Your task to perform on an android device: Go to Google maps Image 0: 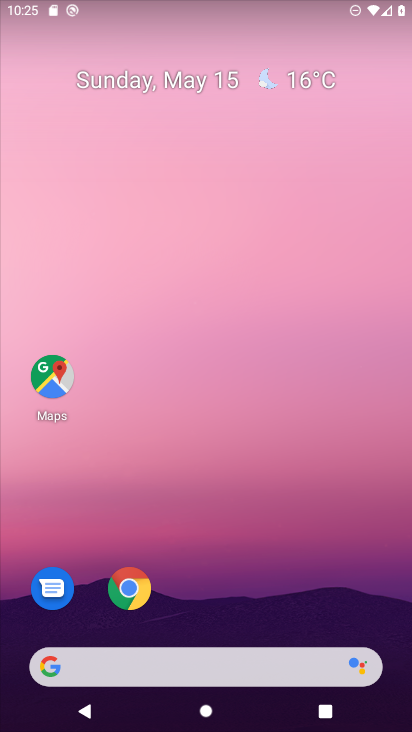
Step 0: click (59, 359)
Your task to perform on an android device: Go to Google maps Image 1: 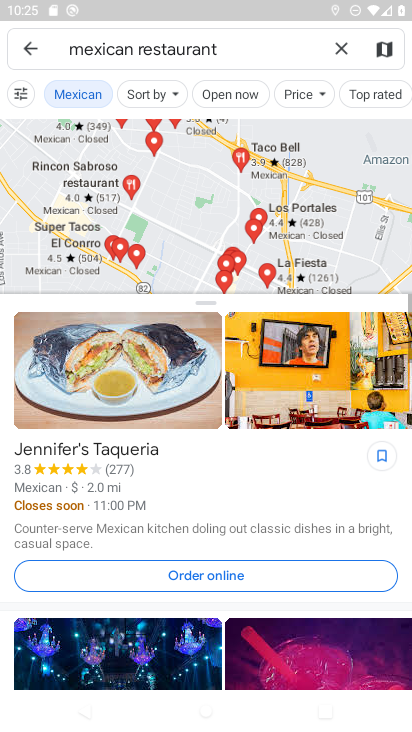
Step 1: task complete